Your task to perform on an android device: create a new album in the google photos Image 0: 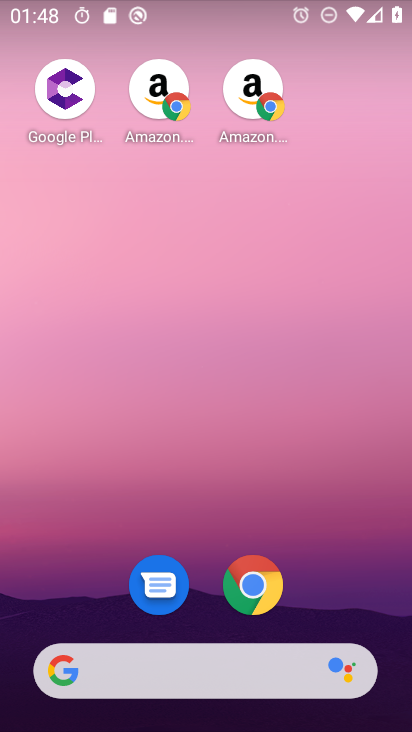
Step 0: drag from (65, 390) to (366, 418)
Your task to perform on an android device: create a new album in the google photos Image 1: 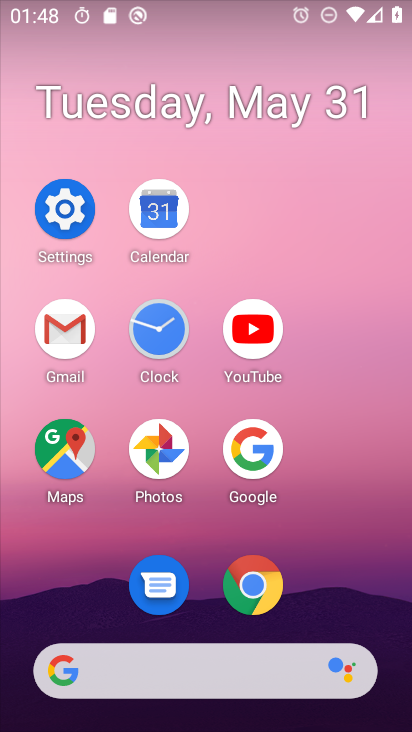
Step 1: drag from (15, 399) to (64, 397)
Your task to perform on an android device: create a new album in the google photos Image 2: 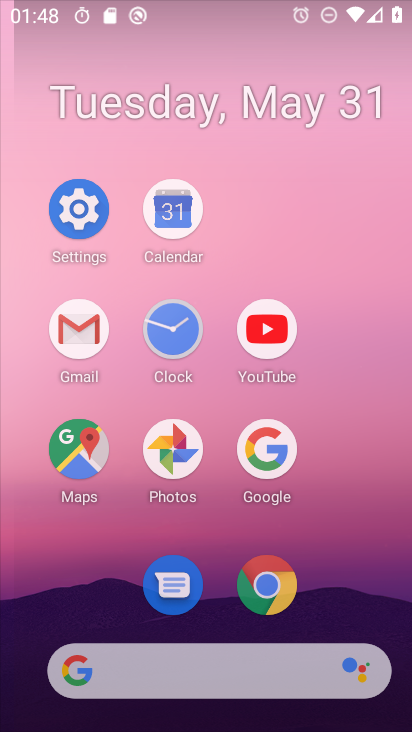
Step 2: click (164, 465)
Your task to perform on an android device: create a new album in the google photos Image 3: 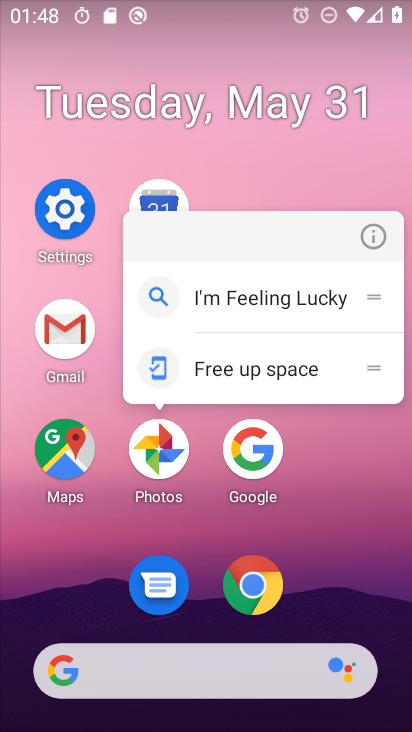
Step 3: click (164, 474)
Your task to perform on an android device: create a new album in the google photos Image 4: 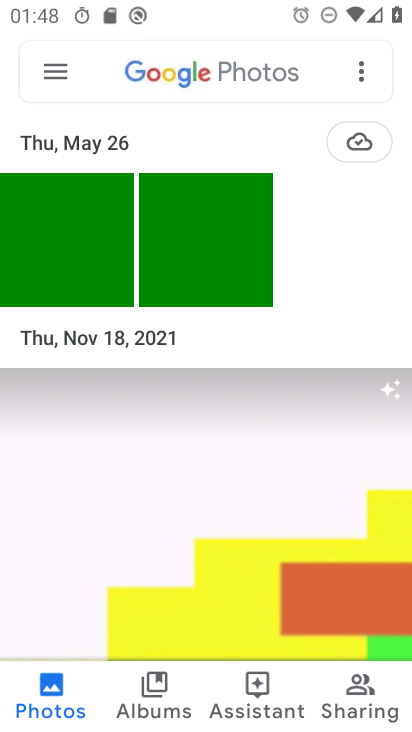
Step 4: click (155, 683)
Your task to perform on an android device: create a new album in the google photos Image 5: 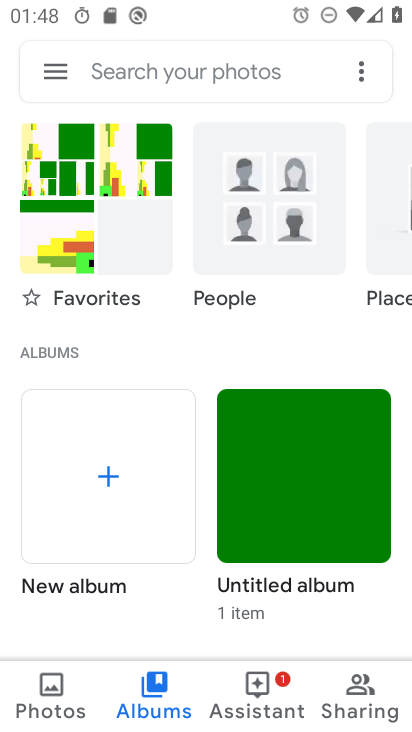
Step 5: click (131, 520)
Your task to perform on an android device: create a new album in the google photos Image 6: 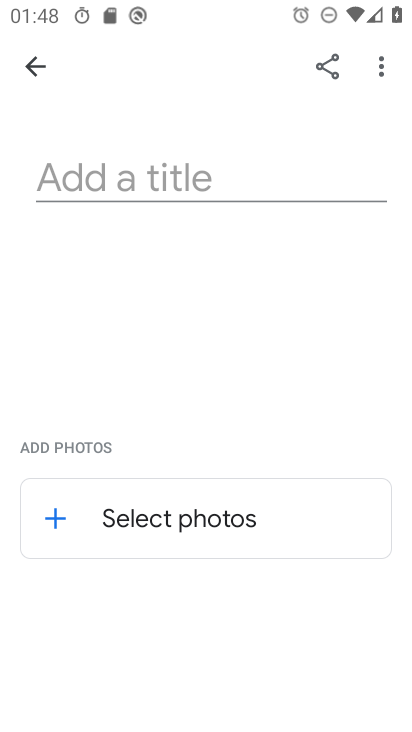
Step 6: click (217, 163)
Your task to perform on an android device: create a new album in the google photos Image 7: 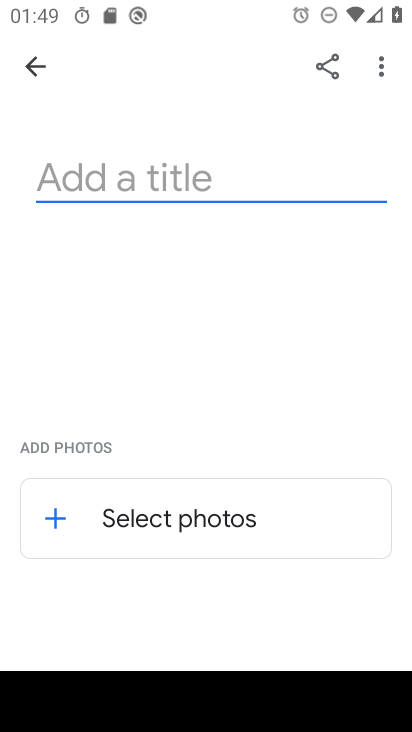
Step 7: type "hhjju"
Your task to perform on an android device: create a new album in the google photos Image 8: 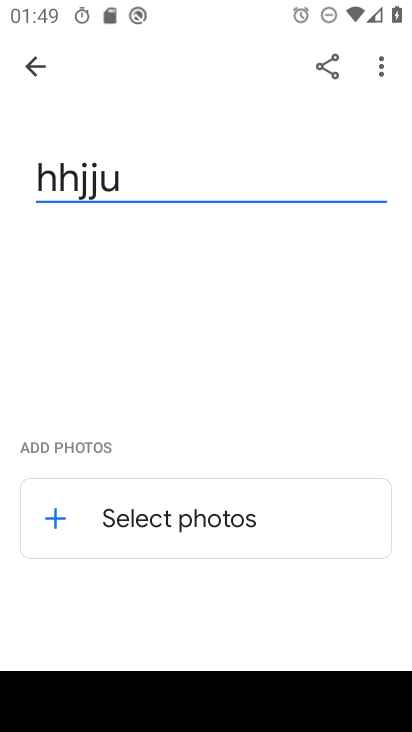
Step 8: click (210, 533)
Your task to perform on an android device: create a new album in the google photos Image 9: 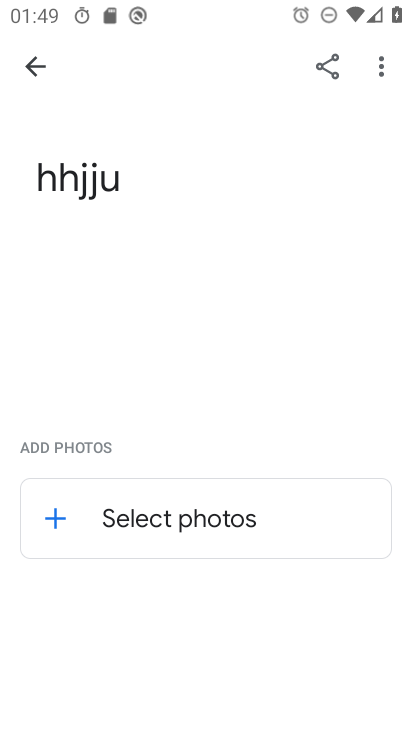
Step 9: click (210, 533)
Your task to perform on an android device: create a new album in the google photos Image 10: 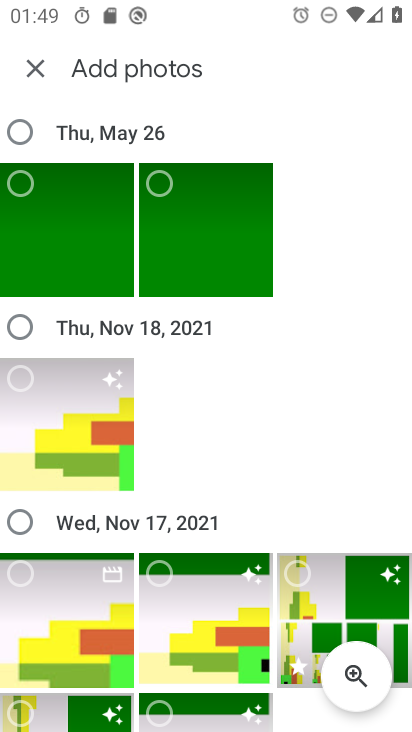
Step 10: click (47, 121)
Your task to perform on an android device: create a new album in the google photos Image 11: 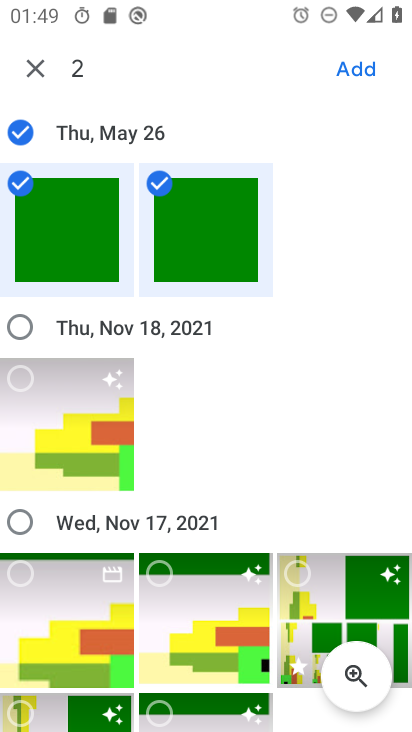
Step 11: click (50, 206)
Your task to perform on an android device: create a new album in the google photos Image 12: 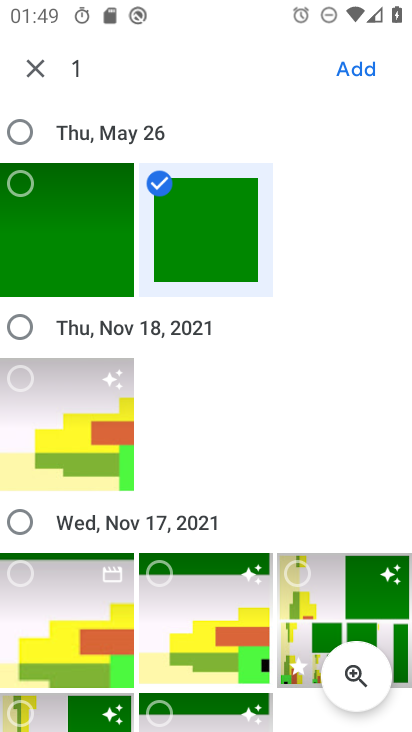
Step 12: click (7, 253)
Your task to perform on an android device: create a new album in the google photos Image 13: 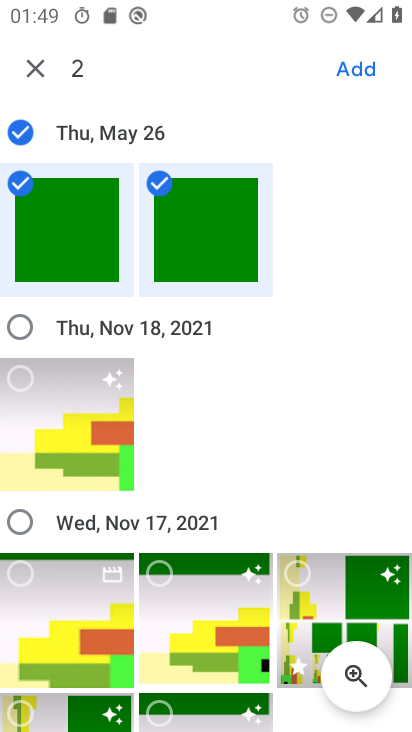
Step 13: click (365, 72)
Your task to perform on an android device: create a new album in the google photos Image 14: 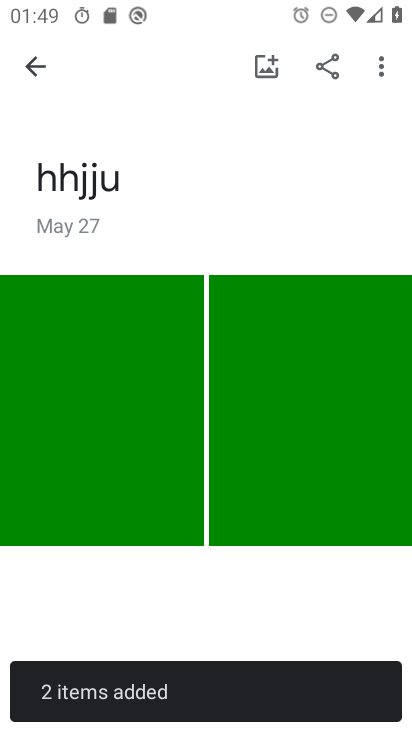
Step 14: task complete